Your task to perform on an android device: delete a single message in the gmail app Image 0: 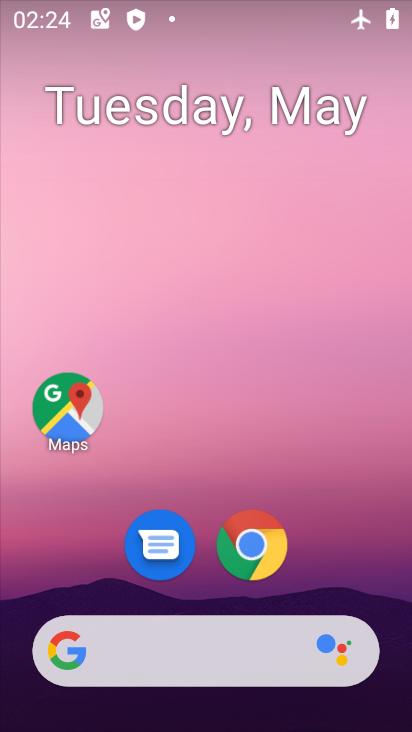
Step 0: drag from (386, 642) to (356, 65)
Your task to perform on an android device: delete a single message in the gmail app Image 1: 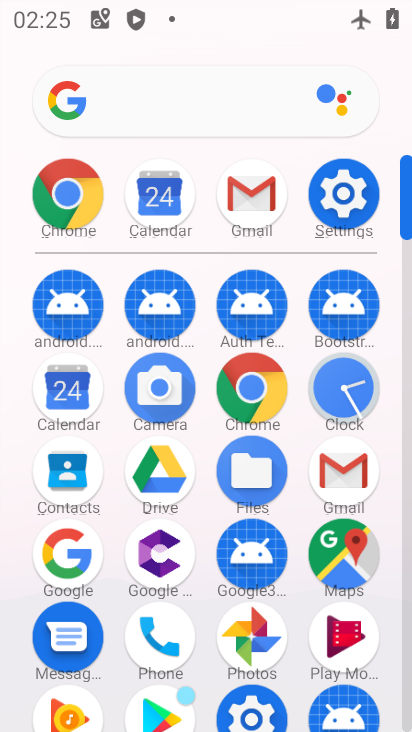
Step 1: click (409, 706)
Your task to perform on an android device: delete a single message in the gmail app Image 2: 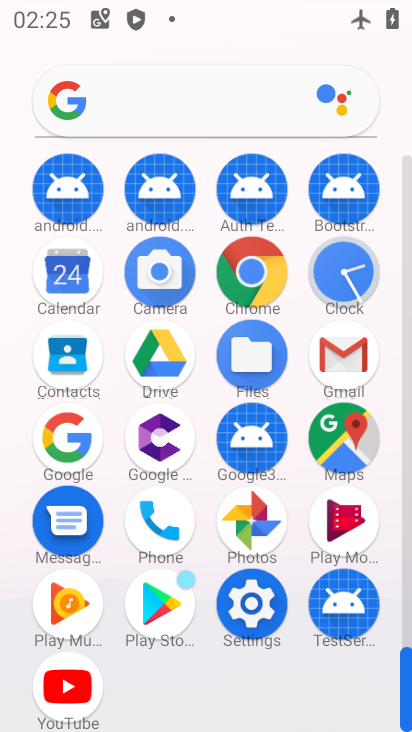
Step 2: click (344, 357)
Your task to perform on an android device: delete a single message in the gmail app Image 3: 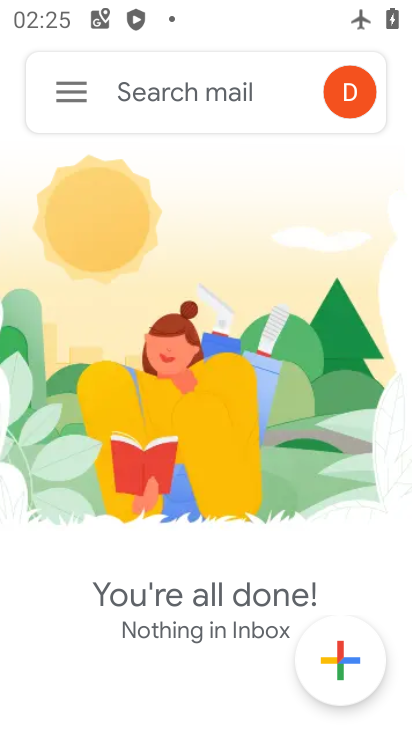
Step 3: click (73, 93)
Your task to perform on an android device: delete a single message in the gmail app Image 4: 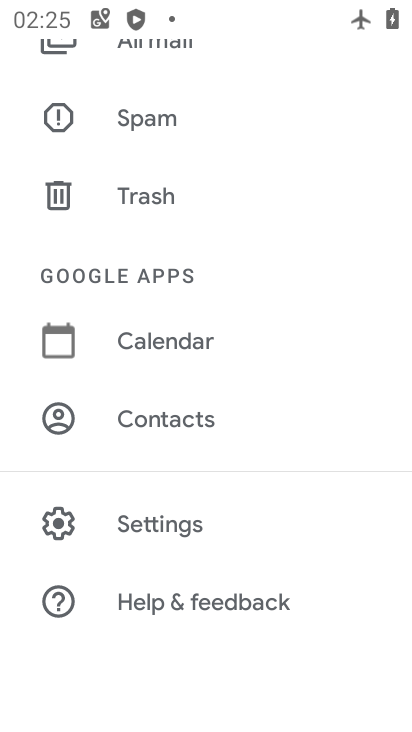
Step 4: click (149, 529)
Your task to perform on an android device: delete a single message in the gmail app Image 5: 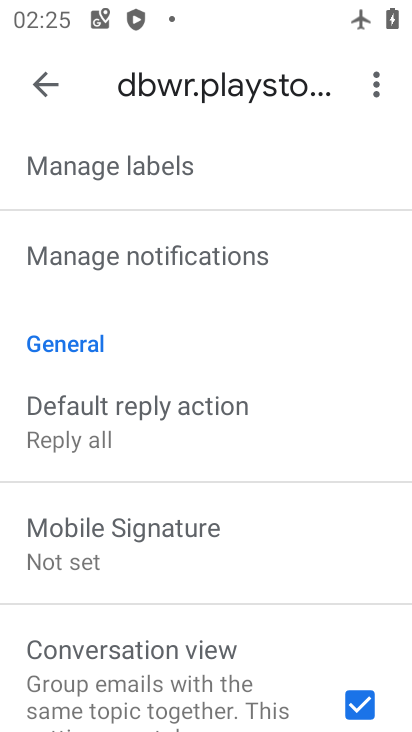
Step 5: press back button
Your task to perform on an android device: delete a single message in the gmail app Image 6: 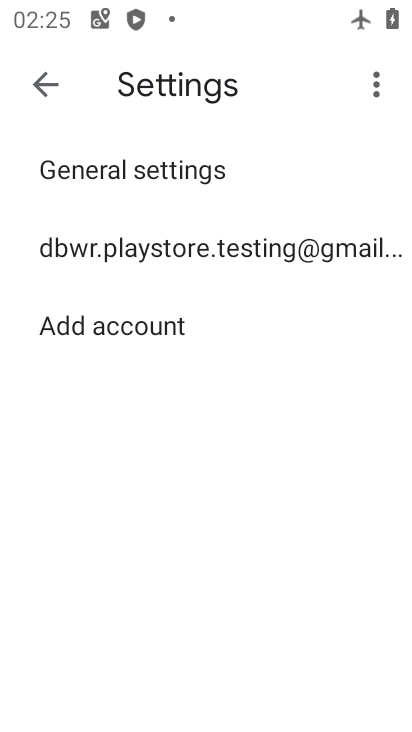
Step 6: press back button
Your task to perform on an android device: delete a single message in the gmail app Image 7: 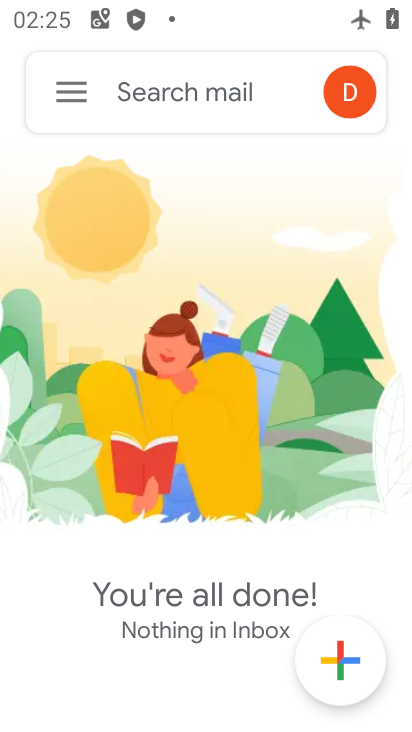
Step 7: click (72, 92)
Your task to perform on an android device: delete a single message in the gmail app Image 8: 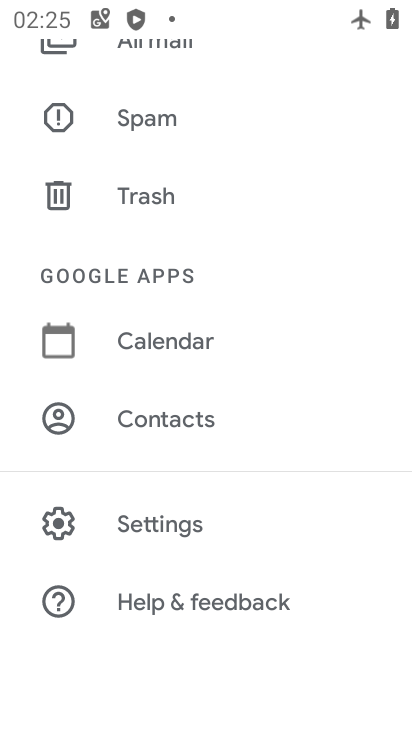
Step 8: click (168, 523)
Your task to perform on an android device: delete a single message in the gmail app Image 9: 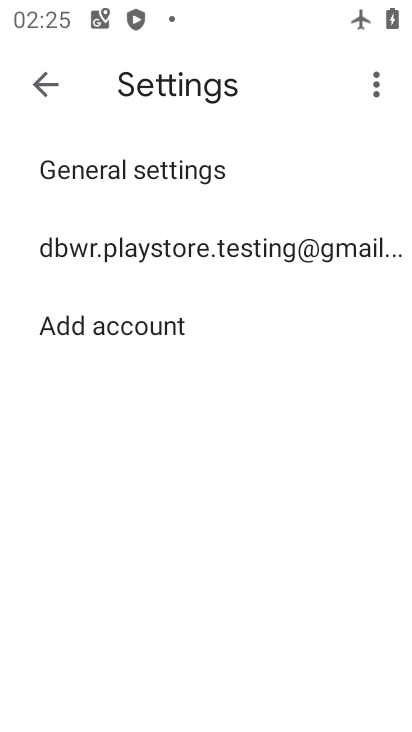
Step 9: press back button
Your task to perform on an android device: delete a single message in the gmail app Image 10: 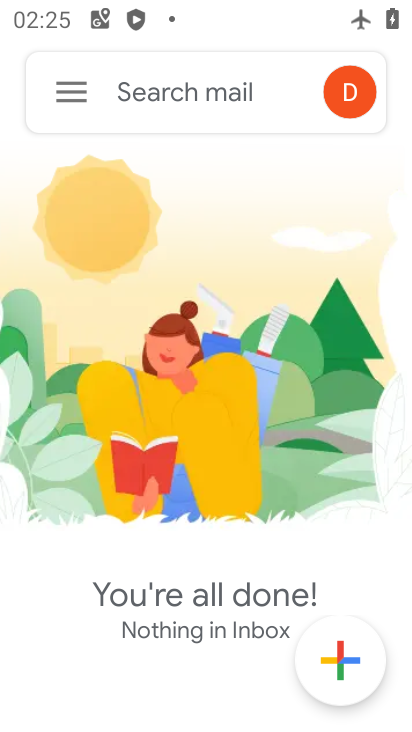
Step 10: click (67, 96)
Your task to perform on an android device: delete a single message in the gmail app Image 11: 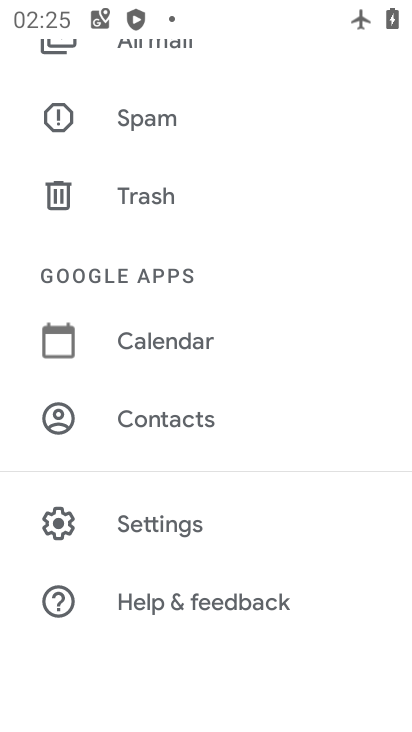
Step 11: drag from (303, 193) to (291, 523)
Your task to perform on an android device: delete a single message in the gmail app Image 12: 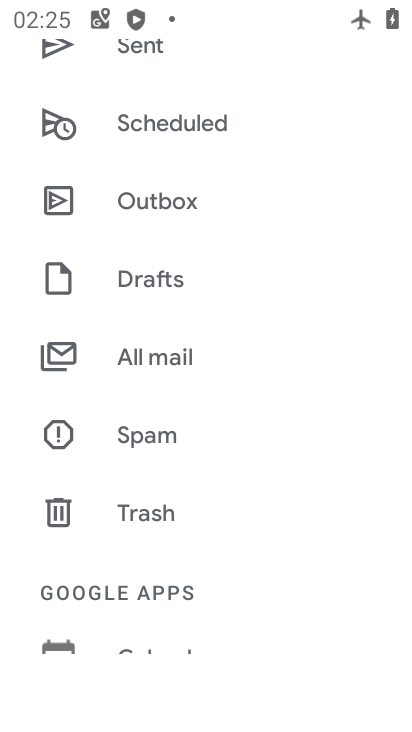
Step 12: click (160, 356)
Your task to perform on an android device: delete a single message in the gmail app Image 13: 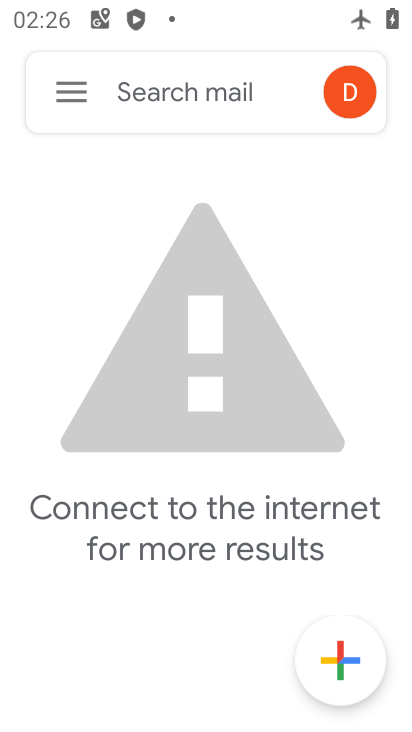
Step 13: task complete